Your task to perform on an android device: delete browsing data in the chrome app Image 0: 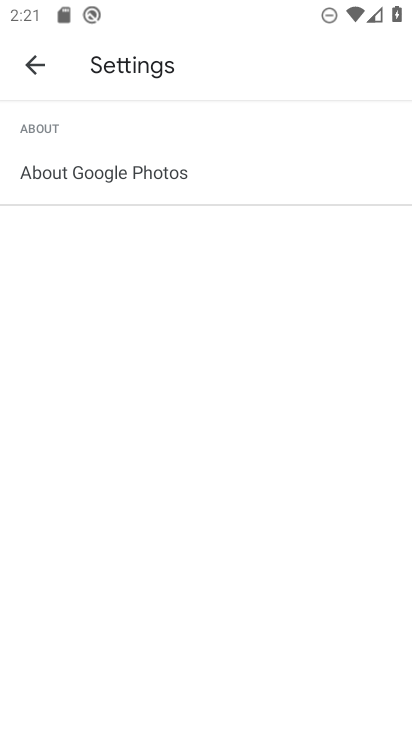
Step 0: press home button
Your task to perform on an android device: delete browsing data in the chrome app Image 1: 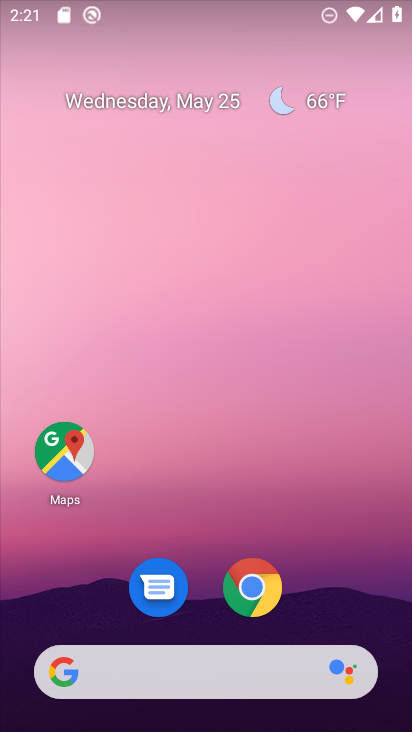
Step 1: drag from (373, 602) to (371, 149)
Your task to perform on an android device: delete browsing data in the chrome app Image 2: 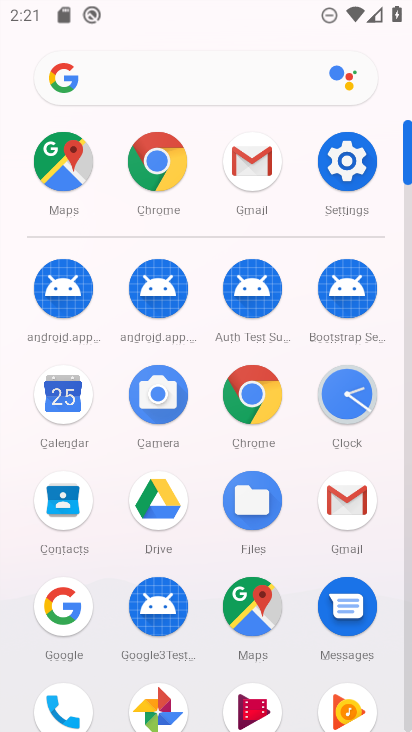
Step 2: click (260, 417)
Your task to perform on an android device: delete browsing data in the chrome app Image 3: 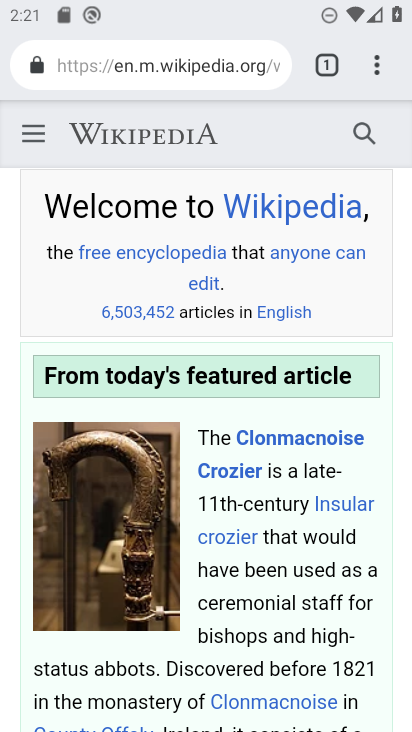
Step 3: click (375, 73)
Your task to perform on an android device: delete browsing data in the chrome app Image 4: 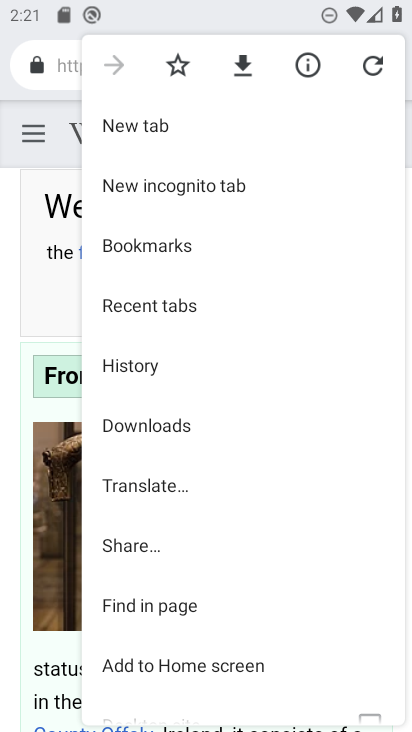
Step 4: drag from (299, 470) to (302, 400)
Your task to perform on an android device: delete browsing data in the chrome app Image 5: 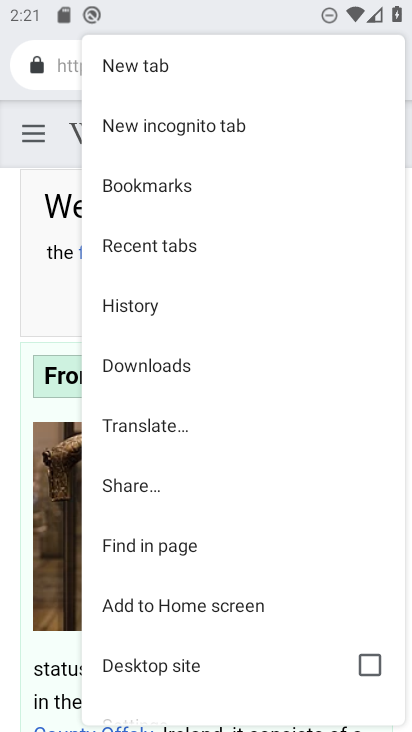
Step 5: drag from (296, 534) to (304, 454)
Your task to perform on an android device: delete browsing data in the chrome app Image 6: 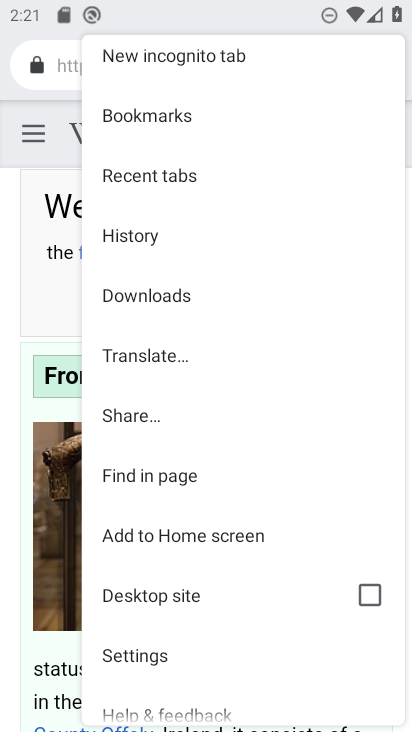
Step 6: drag from (288, 582) to (300, 507)
Your task to perform on an android device: delete browsing data in the chrome app Image 7: 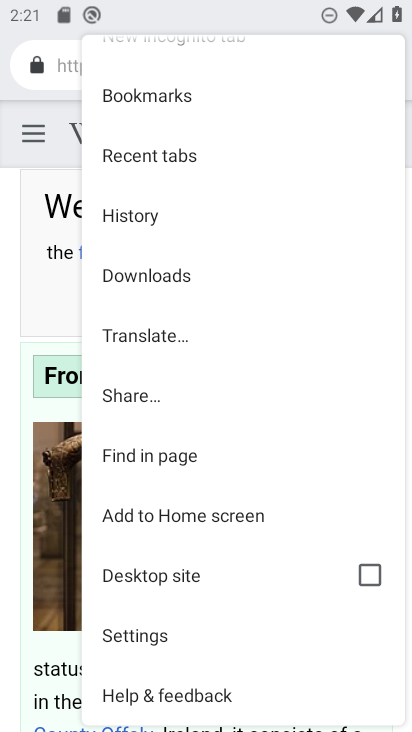
Step 7: click (200, 615)
Your task to perform on an android device: delete browsing data in the chrome app Image 8: 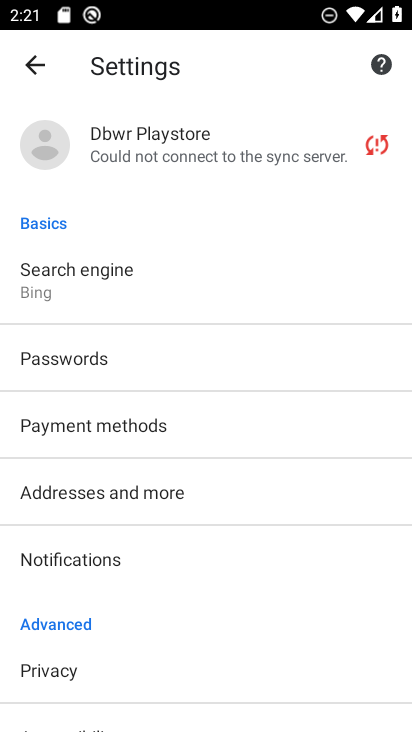
Step 8: drag from (240, 572) to (251, 521)
Your task to perform on an android device: delete browsing data in the chrome app Image 9: 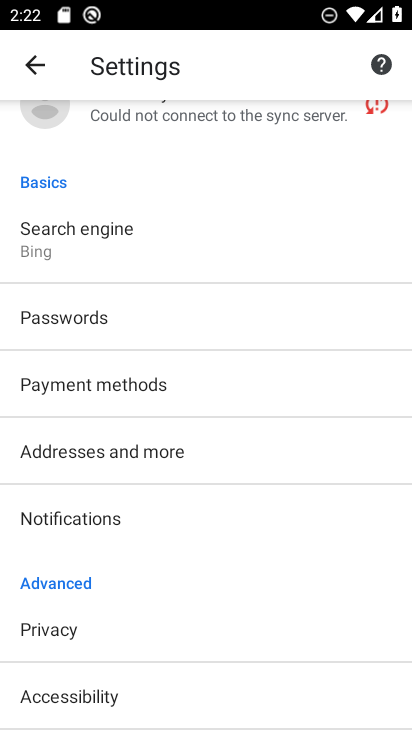
Step 9: drag from (256, 594) to (268, 505)
Your task to perform on an android device: delete browsing data in the chrome app Image 10: 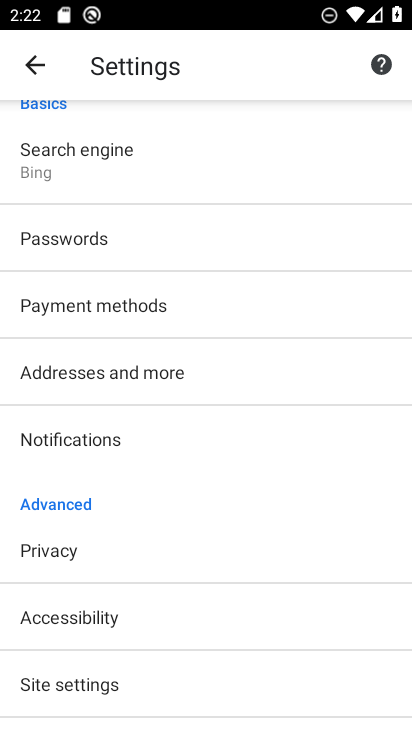
Step 10: drag from (275, 640) to (281, 513)
Your task to perform on an android device: delete browsing data in the chrome app Image 11: 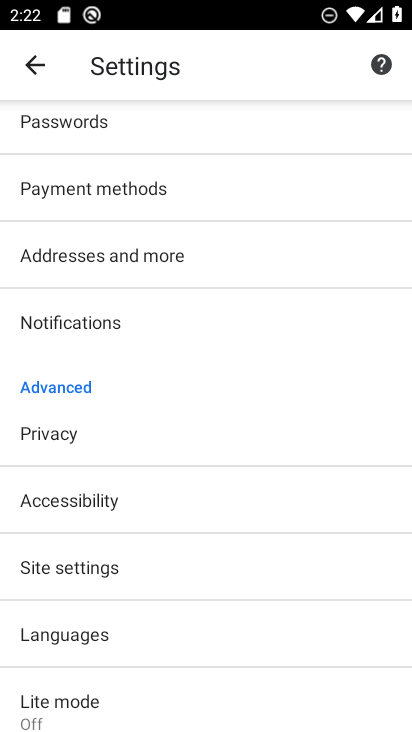
Step 11: drag from (268, 577) to (268, 514)
Your task to perform on an android device: delete browsing data in the chrome app Image 12: 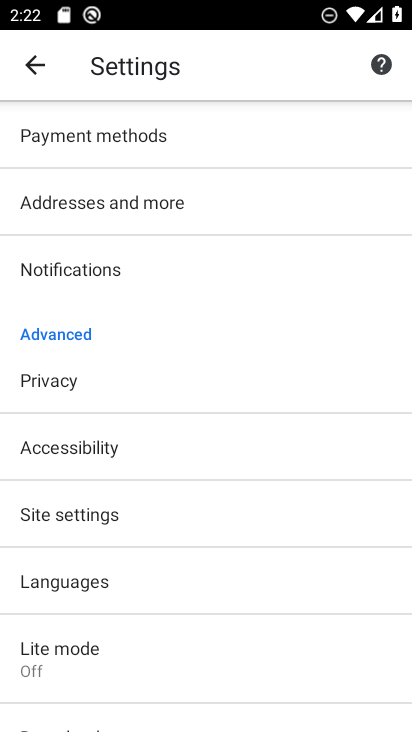
Step 12: drag from (296, 645) to (291, 523)
Your task to perform on an android device: delete browsing data in the chrome app Image 13: 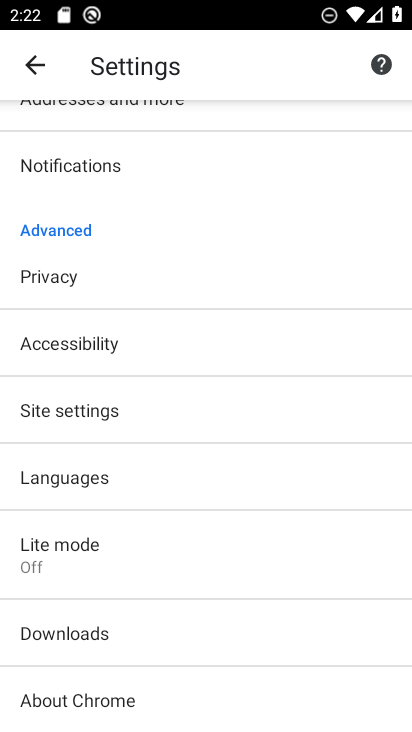
Step 13: click (208, 291)
Your task to perform on an android device: delete browsing data in the chrome app Image 14: 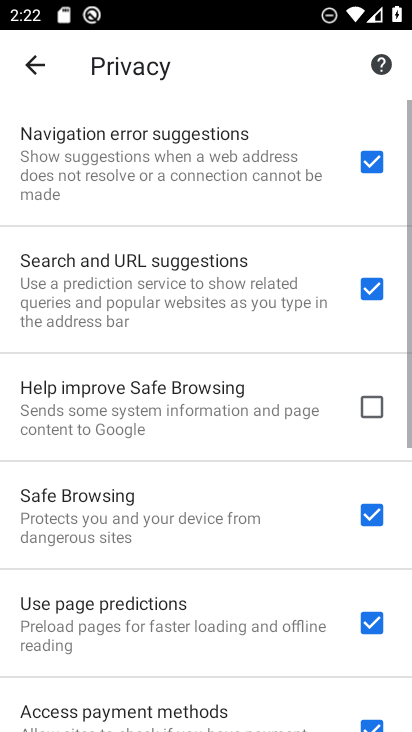
Step 14: drag from (269, 534) to (273, 464)
Your task to perform on an android device: delete browsing data in the chrome app Image 15: 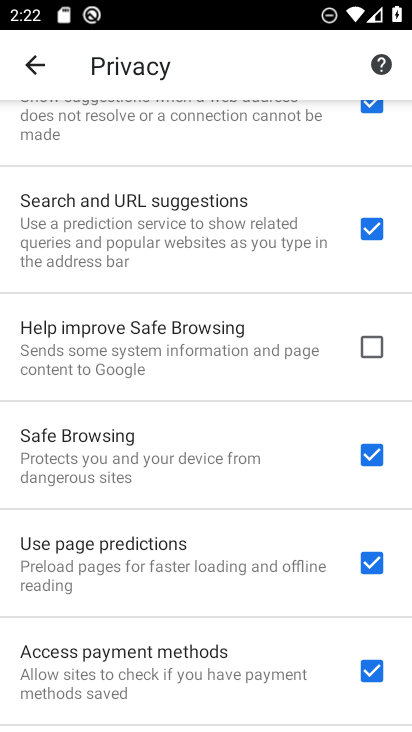
Step 15: drag from (277, 567) to (290, 465)
Your task to perform on an android device: delete browsing data in the chrome app Image 16: 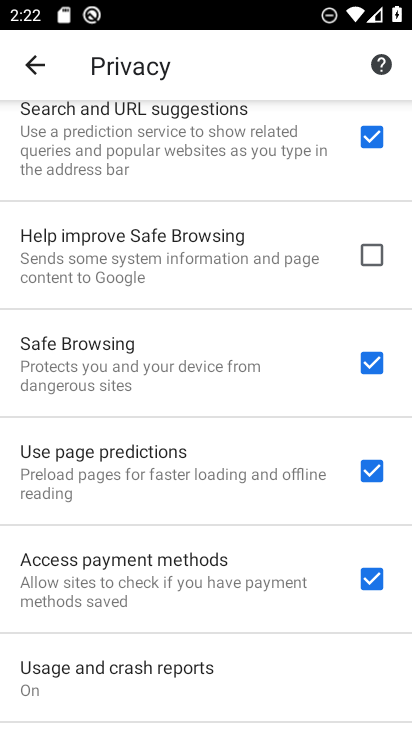
Step 16: drag from (279, 570) to (294, 471)
Your task to perform on an android device: delete browsing data in the chrome app Image 17: 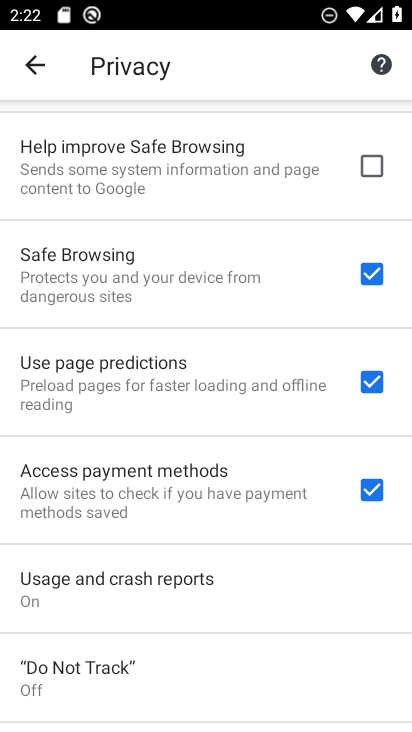
Step 17: drag from (287, 586) to (291, 494)
Your task to perform on an android device: delete browsing data in the chrome app Image 18: 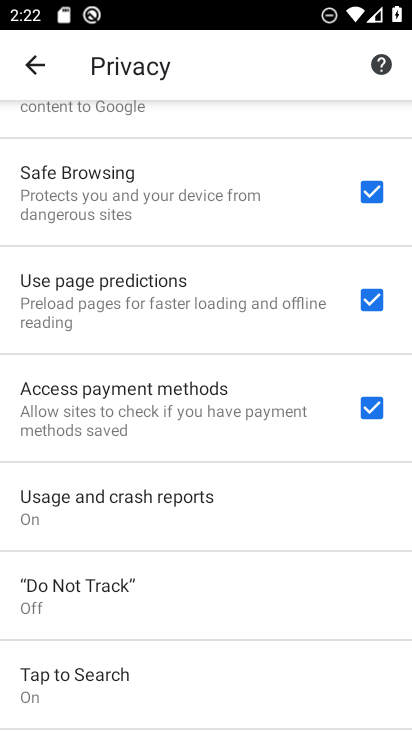
Step 18: drag from (293, 639) to (296, 541)
Your task to perform on an android device: delete browsing data in the chrome app Image 19: 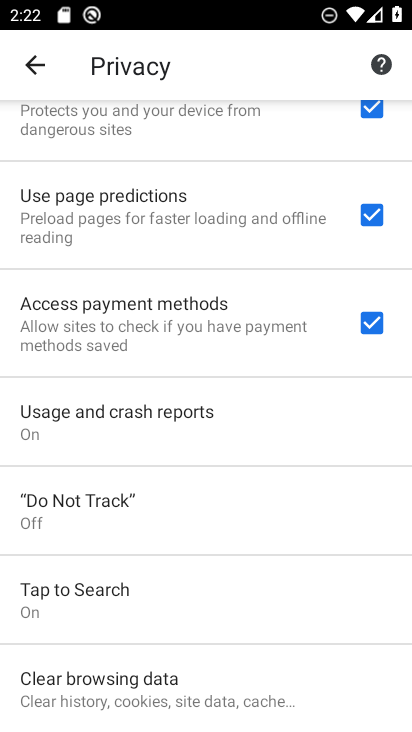
Step 19: click (265, 682)
Your task to perform on an android device: delete browsing data in the chrome app Image 20: 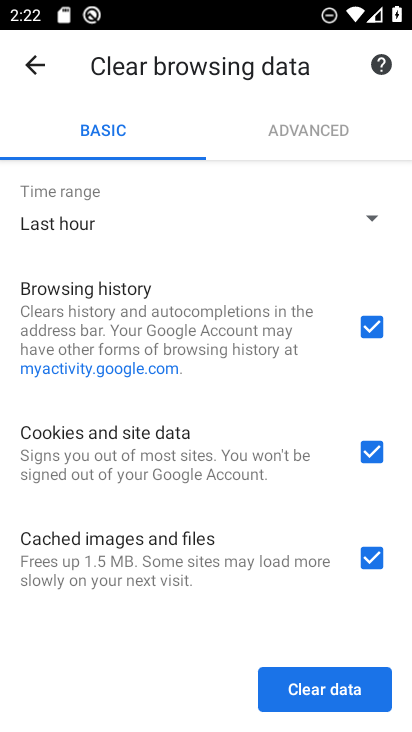
Step 20: click (314, 685)
Your task to perform on an android device: delete browsing data in the chrome app Image 21: 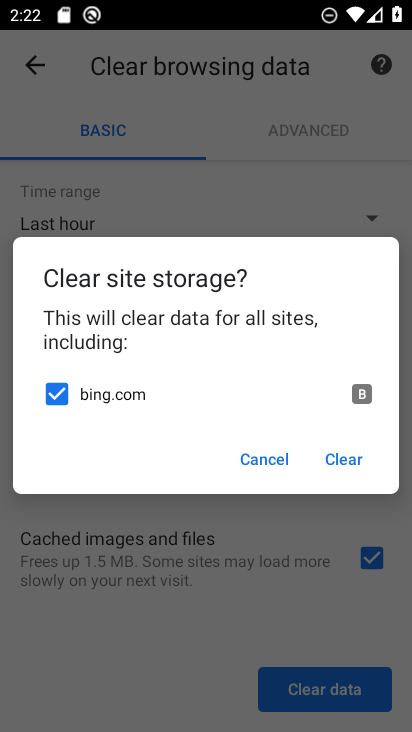
Step 21: click (332, 460)
Your task to perform on an android device: delete browsing data in the chrome app Image 22: 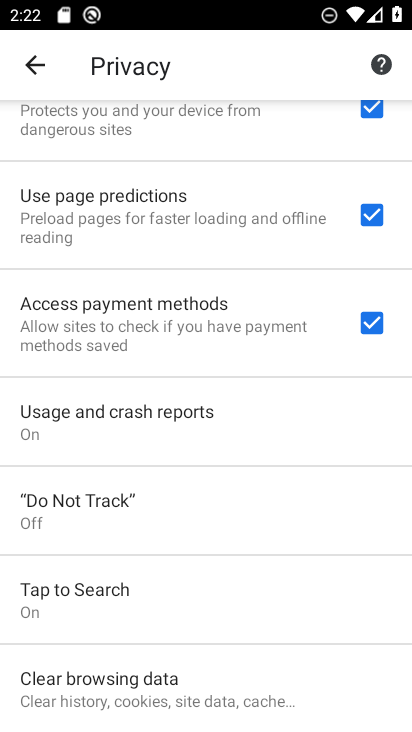
Step 22: task complete